Your task to perform on an android device: Play the last video I watched on Youtube Image 0: 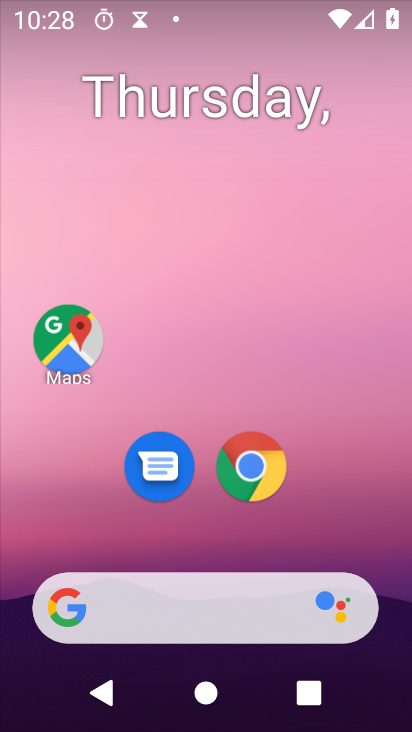
Step 0: press home button
Your task to perform on an android device: Play the last video I watched on Youtube Image 1: 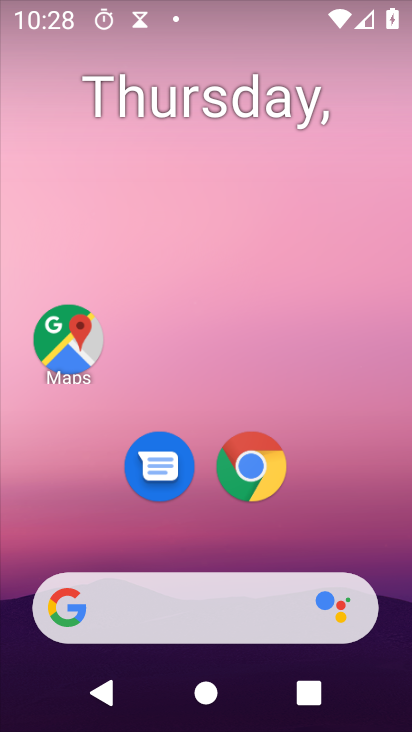
Step 1: drag from (192, 611) to (290, 223)
Your task to perform on an android device: Play the last video I watched on Youtube Image 2: 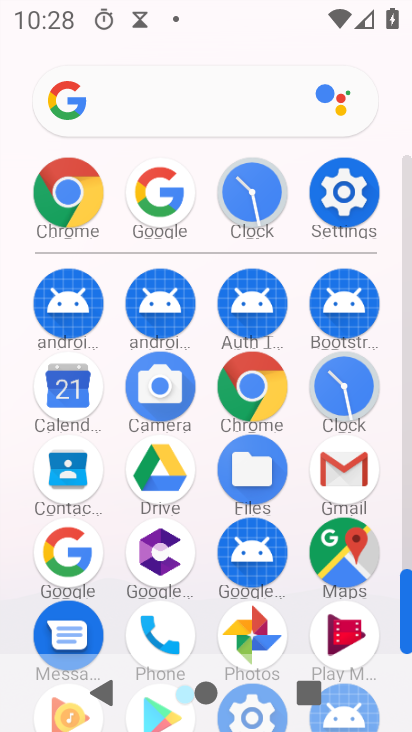
Step 2: drag from (216, 596) to (297, 283)
Your task to perform on an android device: Play the last video I watched on Youtube Image 3: 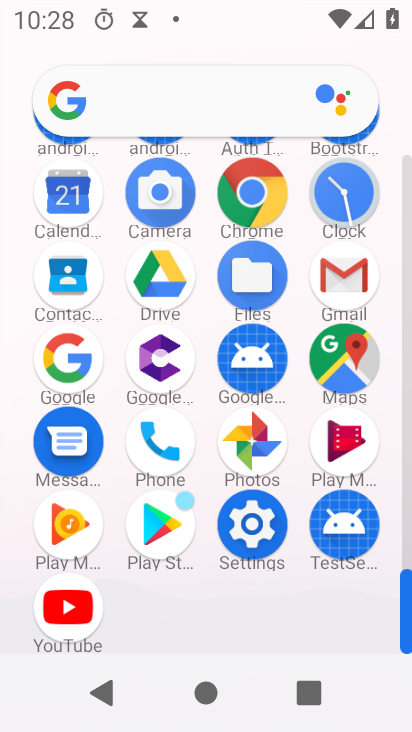
Step 3: click (66, 605)
Your task to perform on an android device: Play the last video I watched on Youtube Image 4: 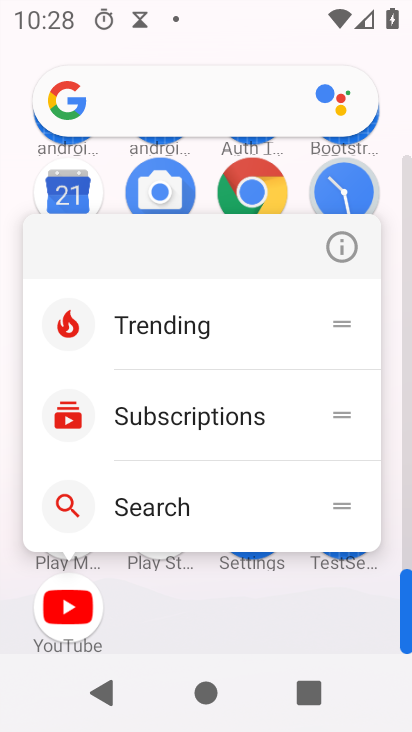
Step 4: click (77, 613)
Your task to perform on an android device: Play the last video I watched on Youtube Image 5: 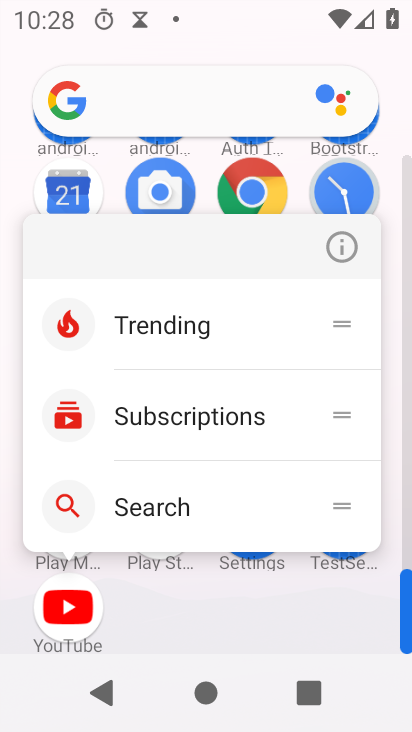
Step 5: click (68, 613)
Your task to perform on an android device: Play the last video I watched on Youtube Image 6: 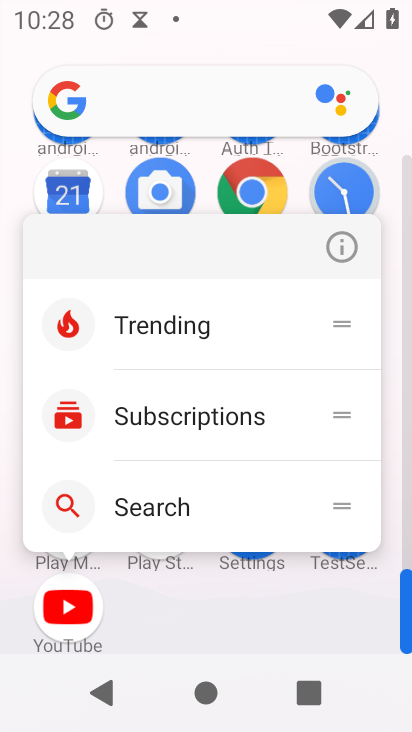
Step 6: click (68, 613)
Your task to perform on an android device: Play the last video I watched on Youtube Image 7: 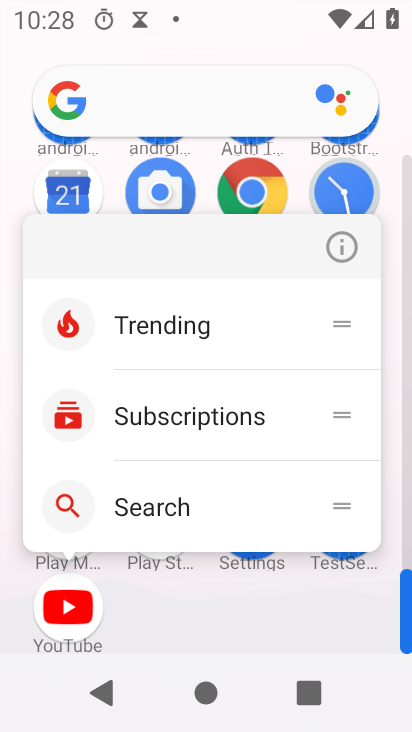
Step 7: click (73, 624)
Your task to perform on an android device: Play the last video I watched on Youtube Image 8: 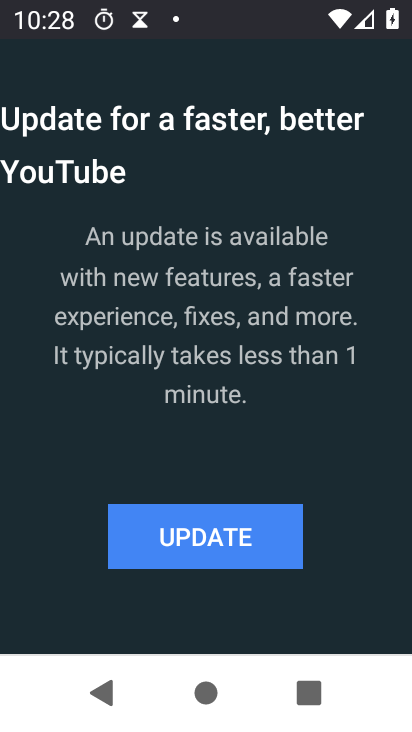
Step 8: click (209, 544)
Your task to perform on an android device: Play the last video I watched on Youtube Image 9: 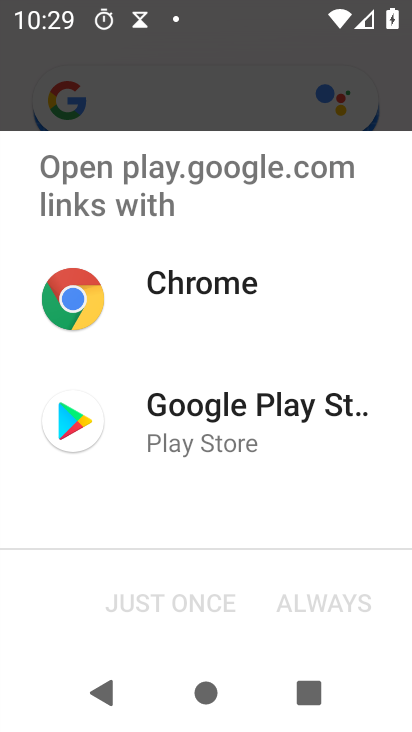
Step 9: click (178, 416)
Your task to perform on an android device: Play the last video I watched on Youtube Image 10: 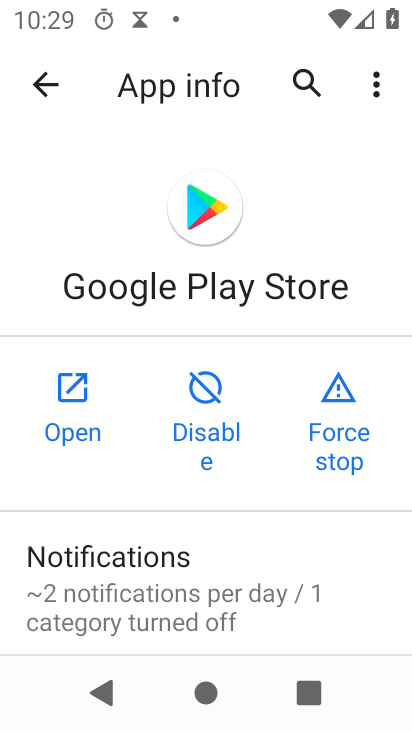
Step 10: task complete